Your task to perform on an android device: Open calendar and show me the third week of next month Image 0: 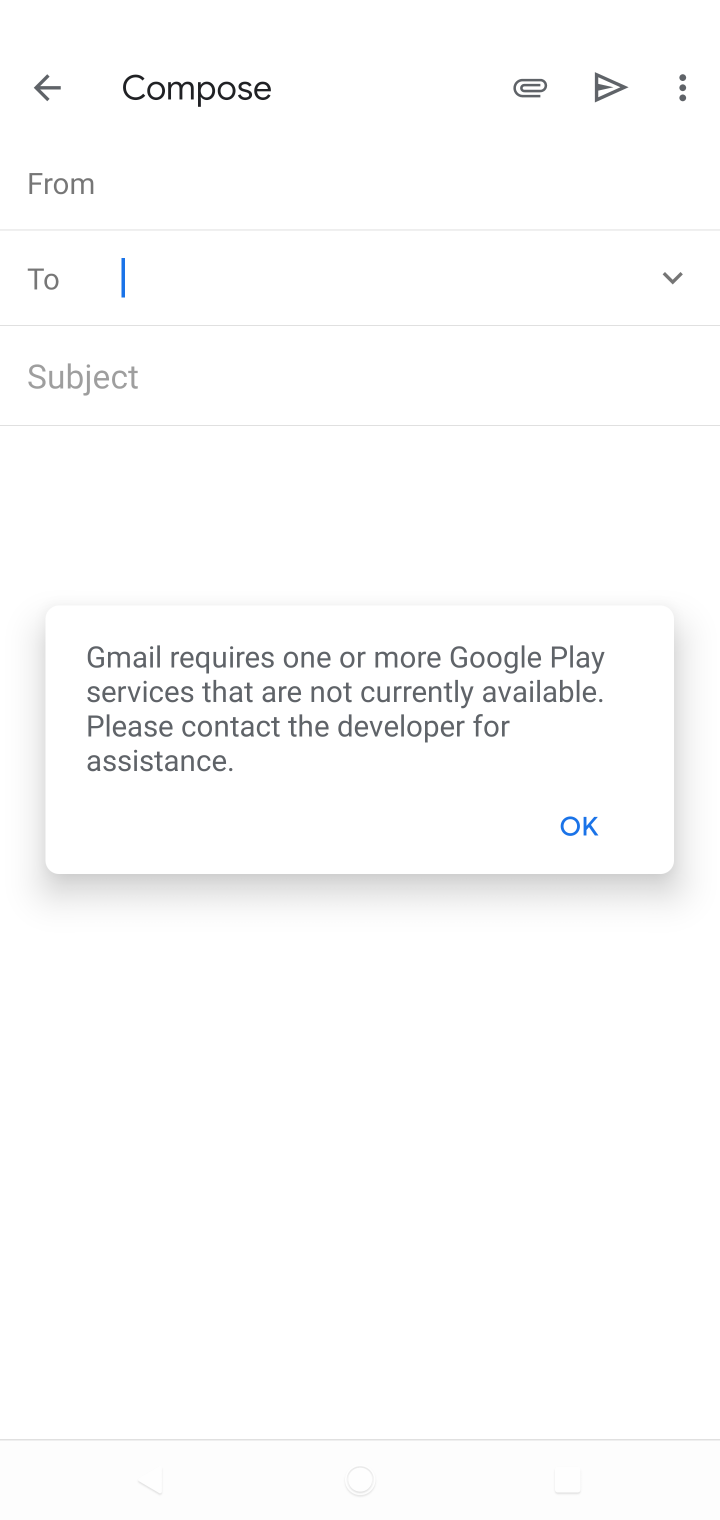
Step 0: press back button
Your task to perform on an android device: Open calendar and show me the third week of next month Image 1: 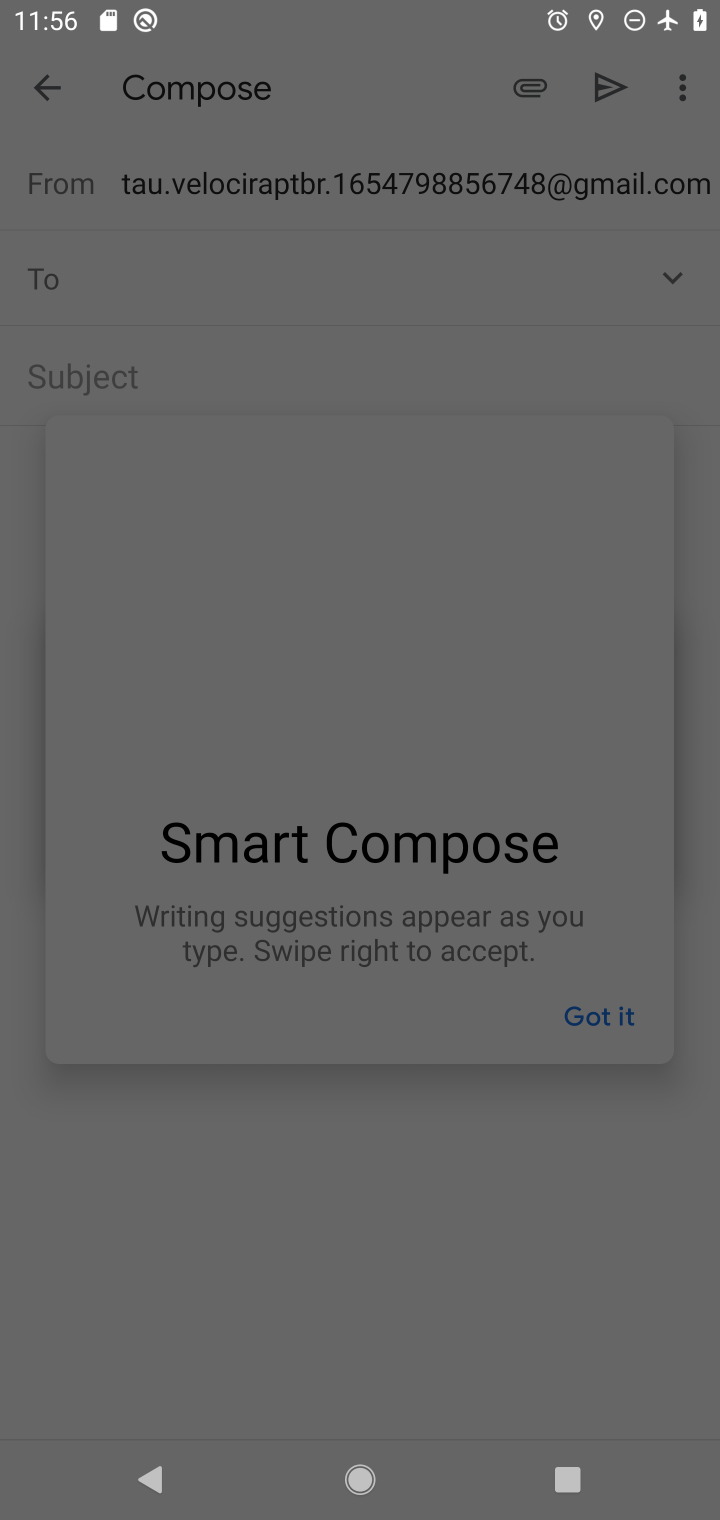
Step 1: press back button
Your task to perform on an android device: Open calendar and show me the third week of next month Image 2: 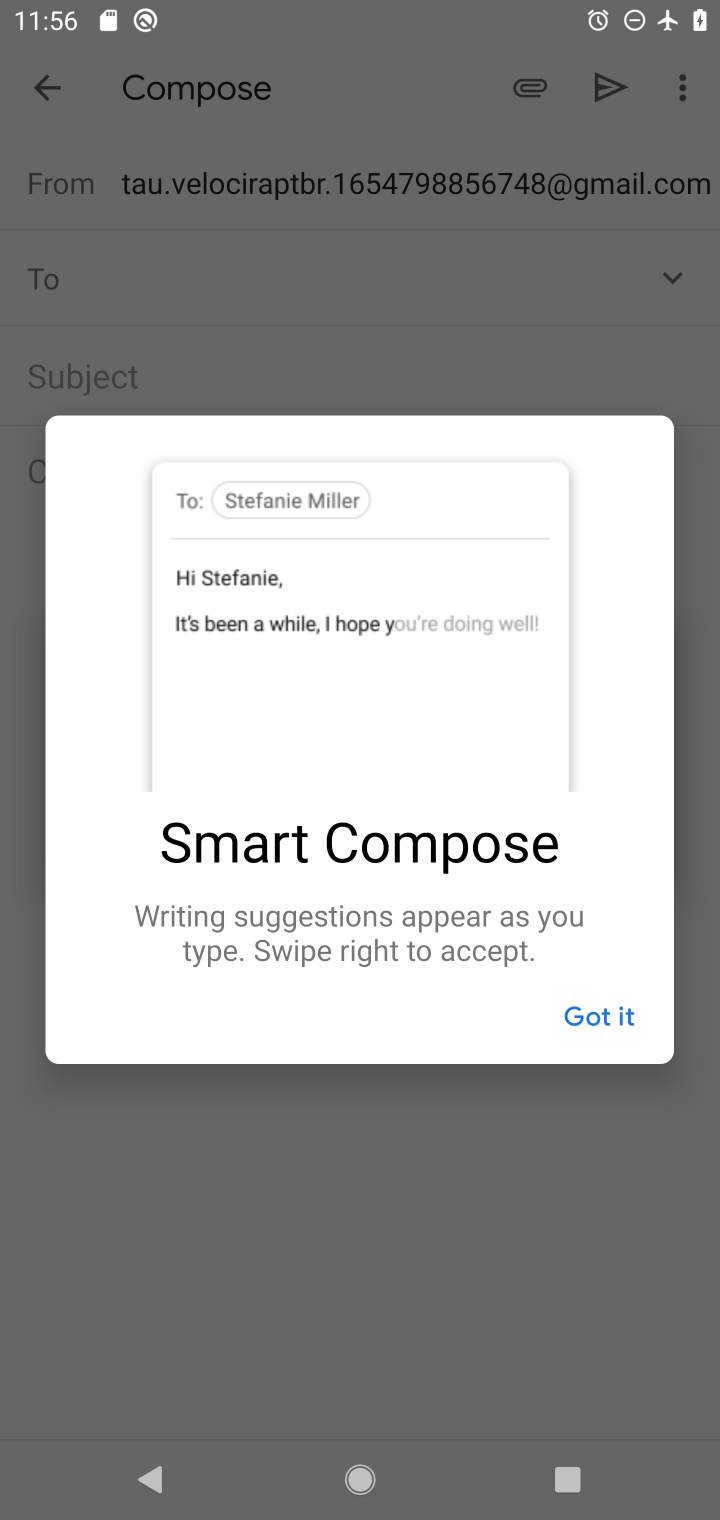
Step 2: press home button
Your task to perform on an android device: Open calendar and show me the third week of next month Image 3: 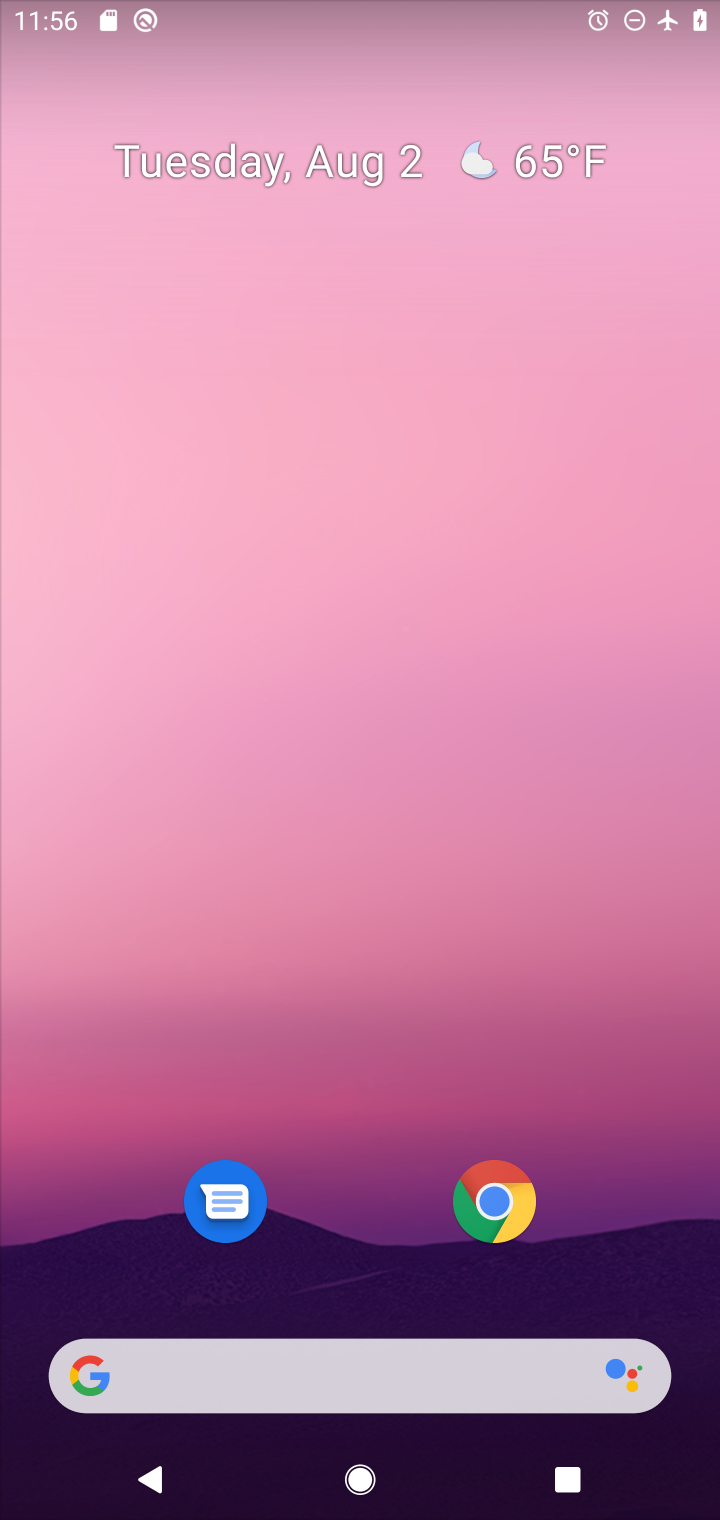
Step 3: drag from (382, 1244) to (358, 138)
Your task to perform on an android device: Open calendar and show me the third week of next month Image 4: 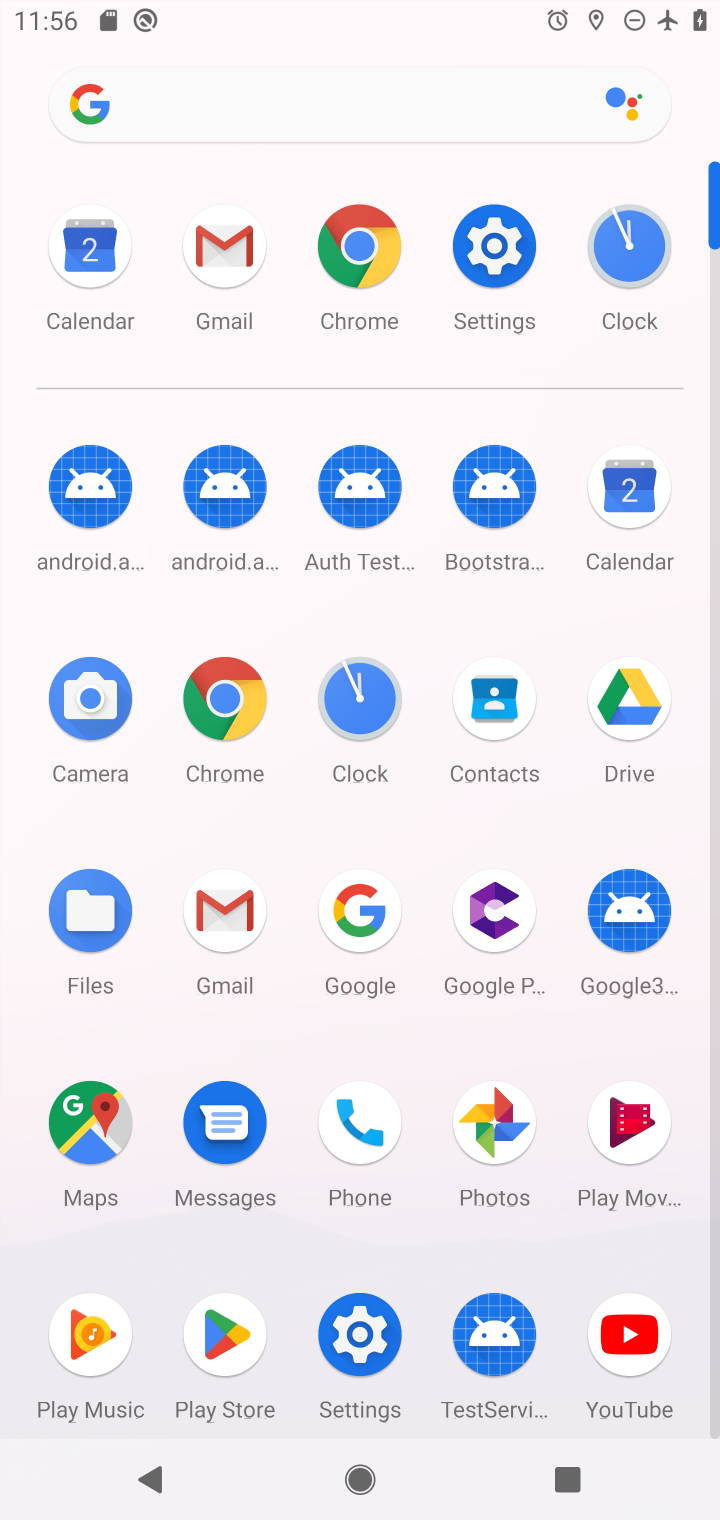
Step 4: click (633, 513)
Your task to perform on an android device: Open calendar and show me the third week of next month Image 5: 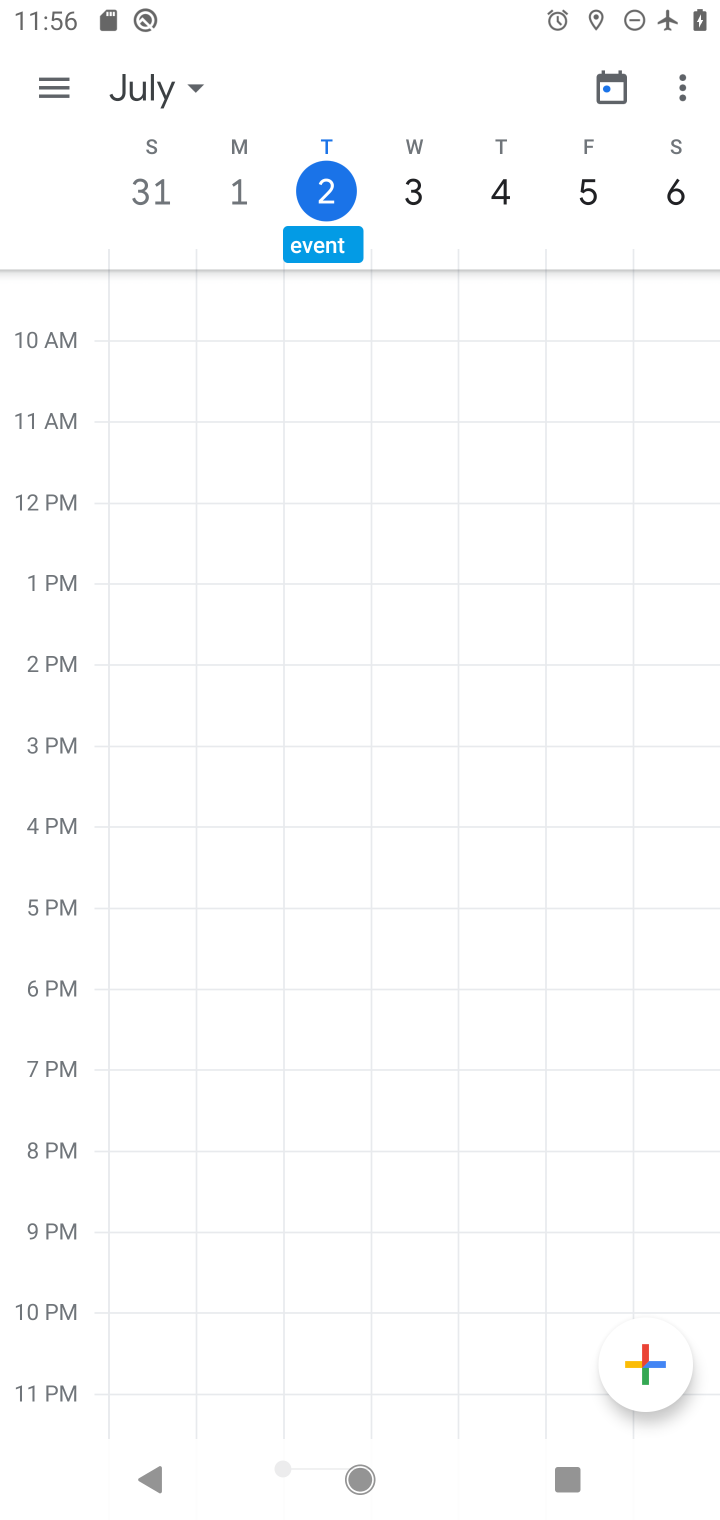
Step 5: task complete